Your task to perform on an android device: check storage Image 0: 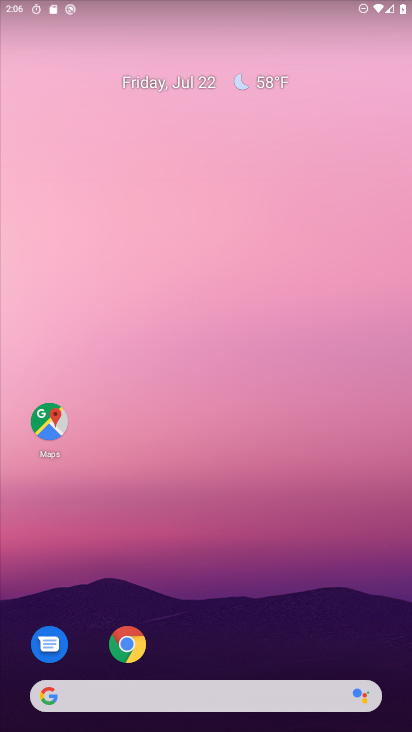
Step 0: drag from (230, 611) to (248, 175)
Your task to perform on an android device: check storage Image 1: 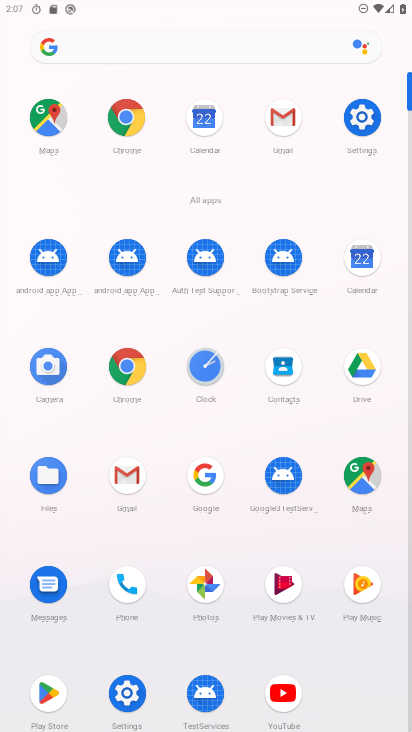
Step 1: click (363, 137)
Your task to perform on an android device: check storage Image 2: 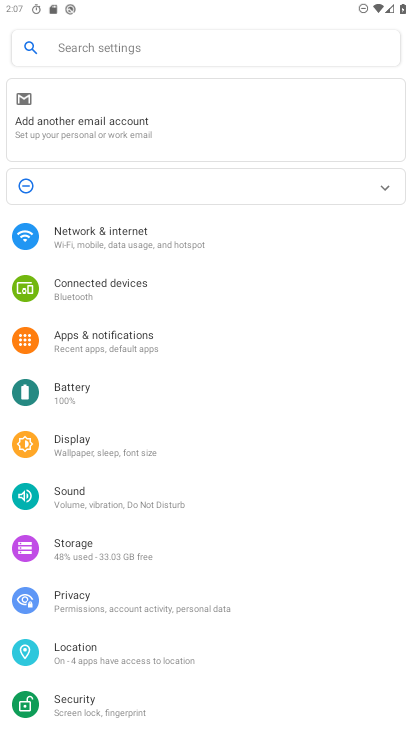
Step 2: click (105, 547)
Your task to perform on an android device: check storage Image 3: 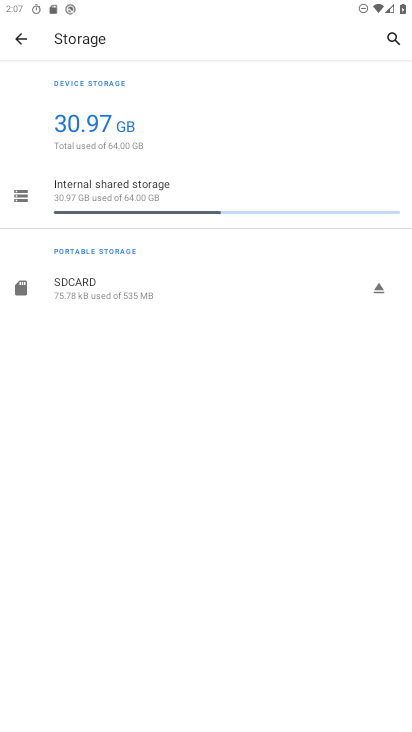
Step 3: click (155, 216)
Your task to perform on an android device: check storage Image 4: 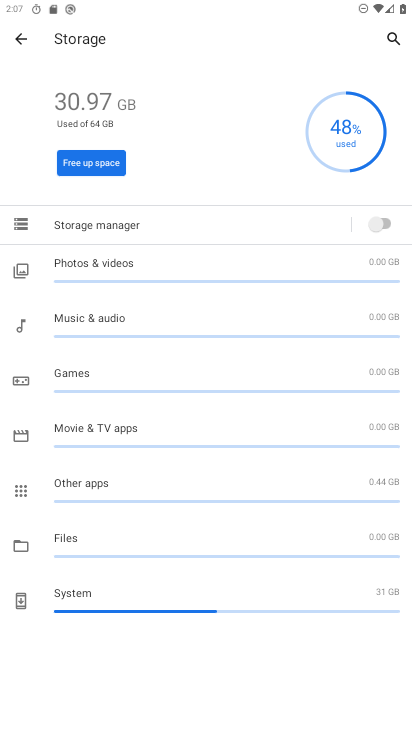
Step 4: task complete